Your task to perform on an android device: Open notification settings Image 0: 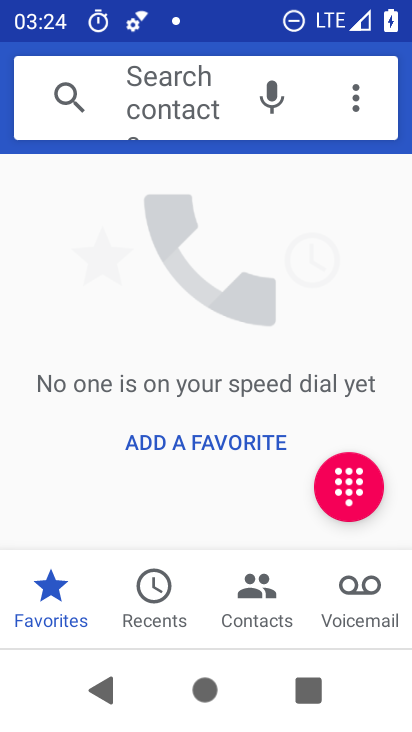
Step 0: press home button
Your task to perform on an android device: Open notification settings Image 1: 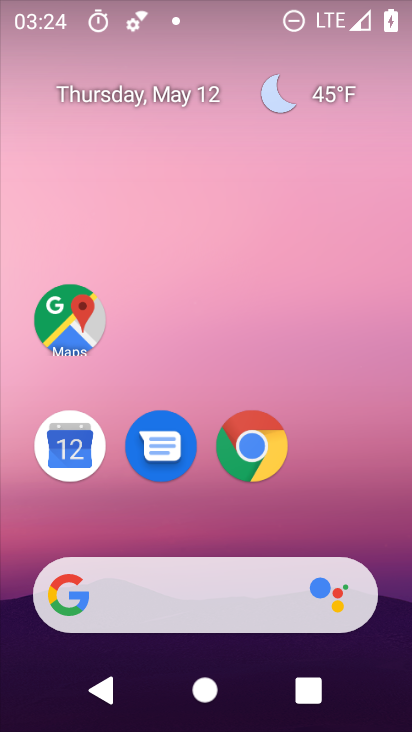
Step 1: drag from (222, 523) to (222, 135)
Your task to perform on an android device: Open notification settings Image 2: 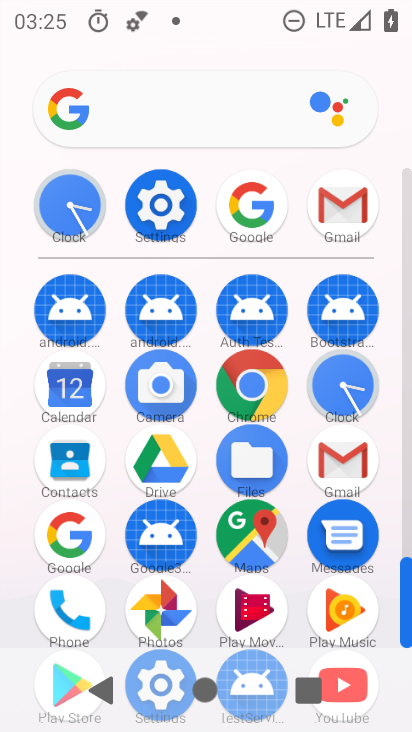
Step 2: click (165, 184)
Your task to perform on an android device: Open notification settings Image 3: 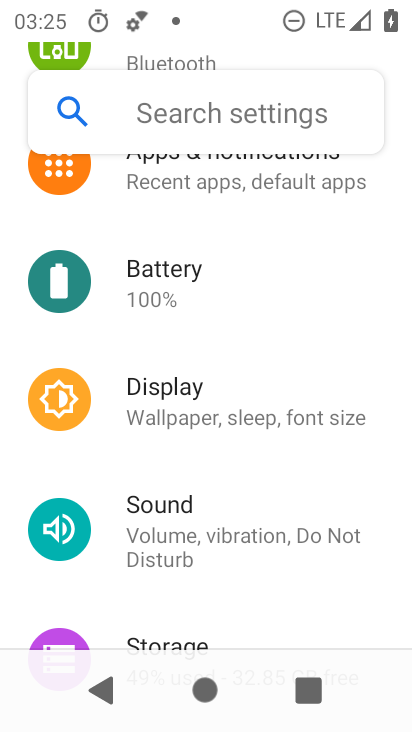
Step 3: drag from (225, 251) to (239, 443)
Your task to perform on an android device: Open notification settings Image 4: 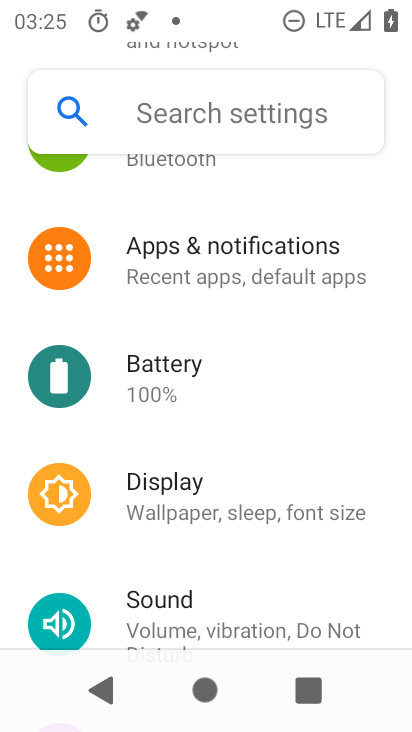
Step 4: click (239, 283)
Your task to perform on an android device: Open notification settings Image 5: 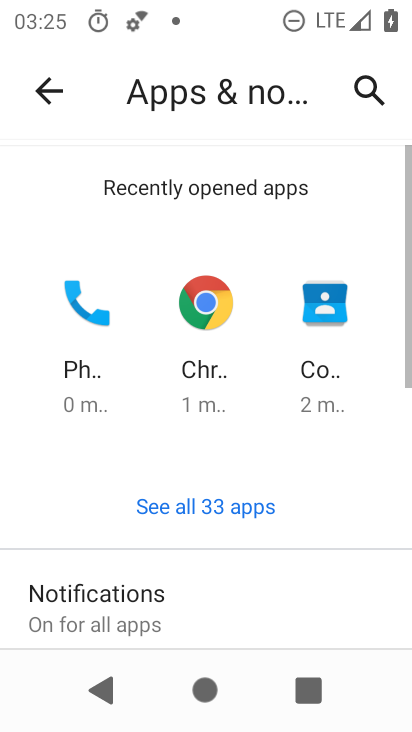
Step 5: click (229, 582)
Your task to perform on an android device: Open notification settings Image 6: 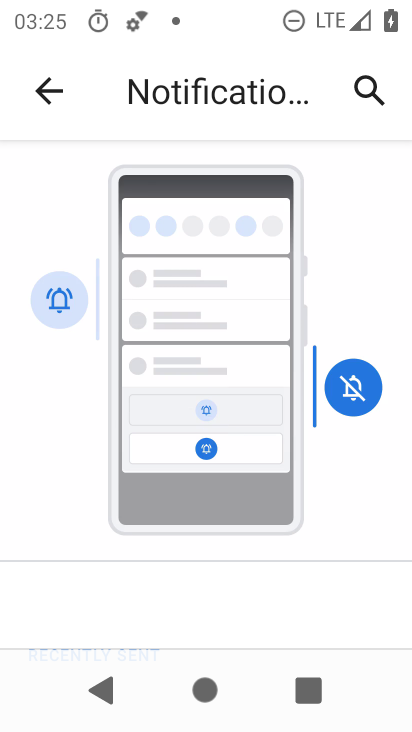
Step 6: task complete